Your task to perform on an android device: turn notification dots on Image 0: 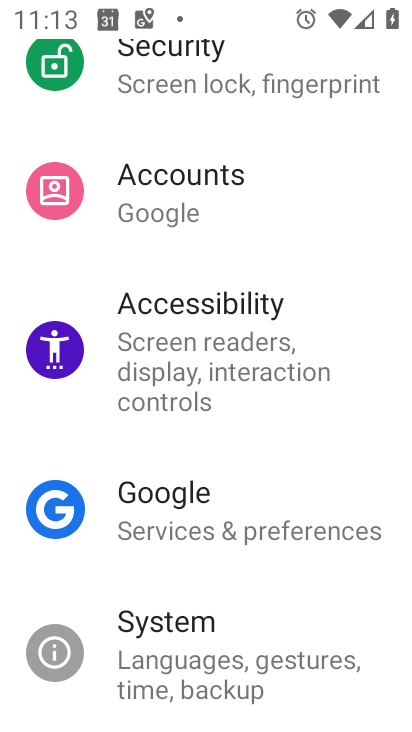
Step 0: drag from (284, 339) to (315, 461)
Your task to perform on an android device: turn notification dots on Image 1: 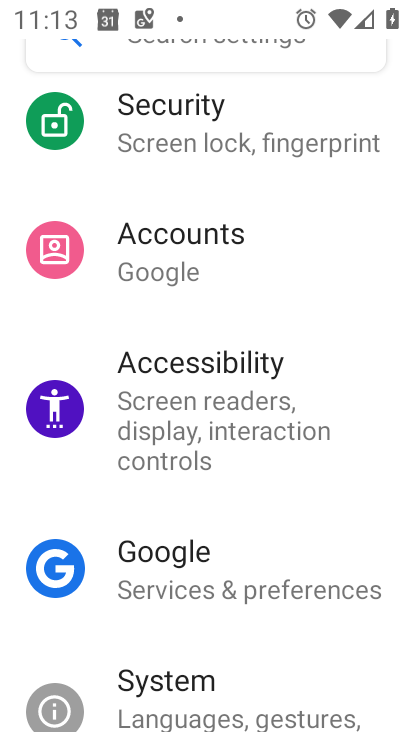
Step 1: drag from (288, 384) to (306, 455)
Your task to perform on an android device: turn notification dots on Image 2: 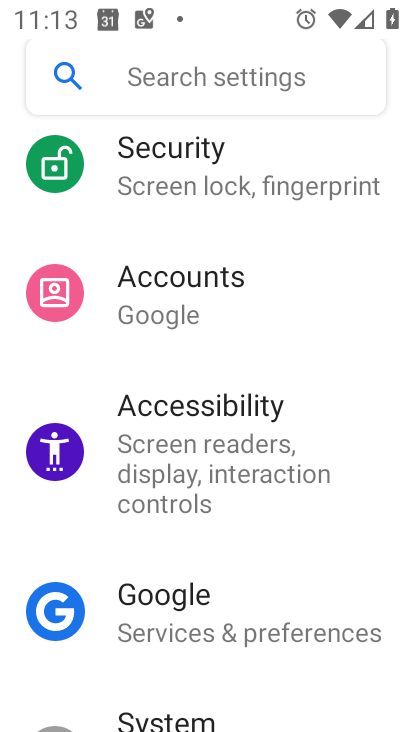
Step 2: drag from (269, 370) to (272, 514)
Your task to perform on an android device: turn notification dots on Image 3: 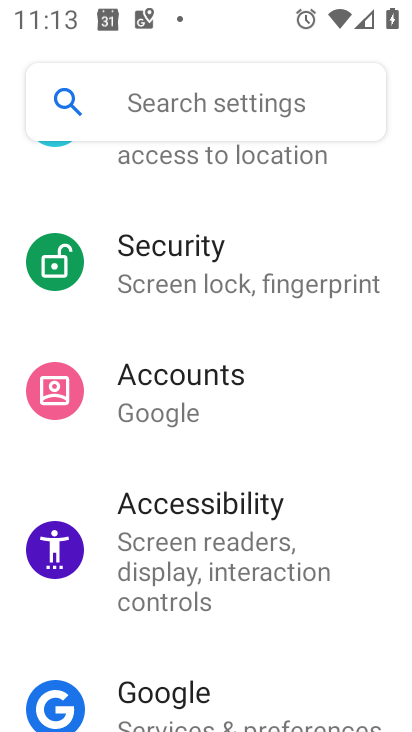
Step 3: drag from (97, 279) to (165, 520)
Your task to perform on an android device: turn notification dots on Image 4: 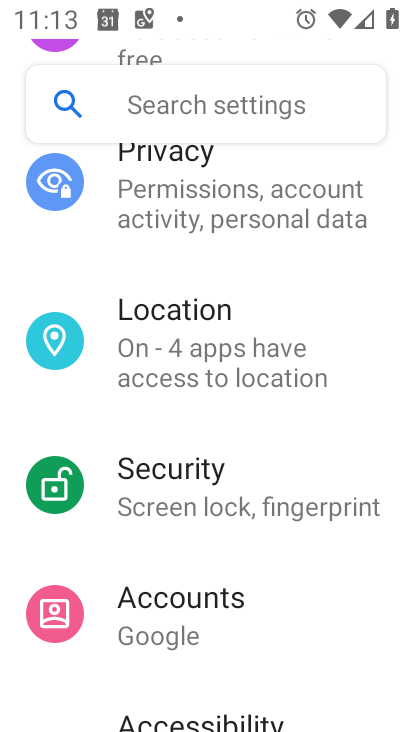
Step 4: drag from (178, 339) to (248, 536)
Your task to perform on an android device: turn notification dots on Image 5: 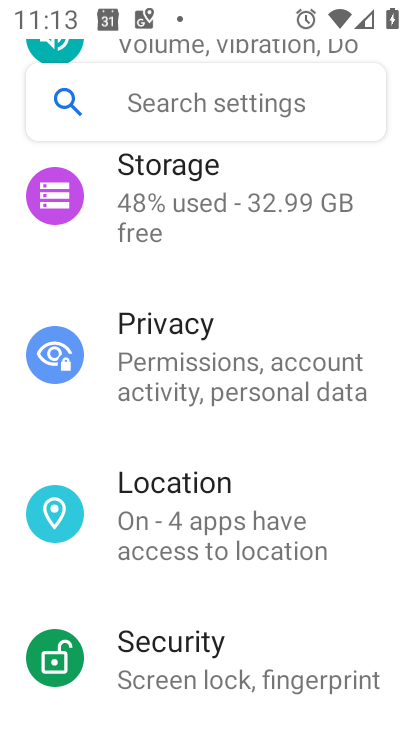
Step 5: drag from (314, 293) to (299, 656)
Your task to perform on an android device: turn notification dots on Image 6: 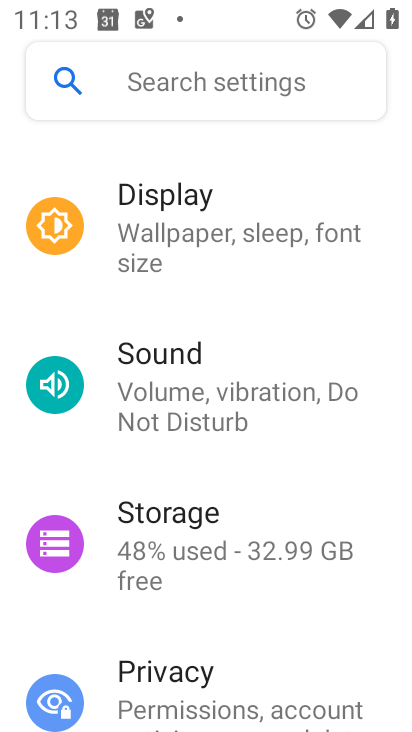
Step 6: drag from (227, 231) to (269, 427)
Your task to perform on an android device: turn notification dots on Image 7: 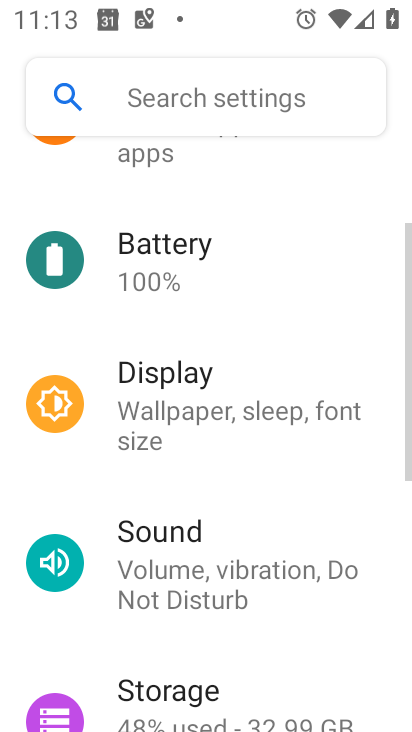
Step 7: drag from (271, 305) to (258, 445)
Your task to perform on an android device: turn notification dots on Image 8: 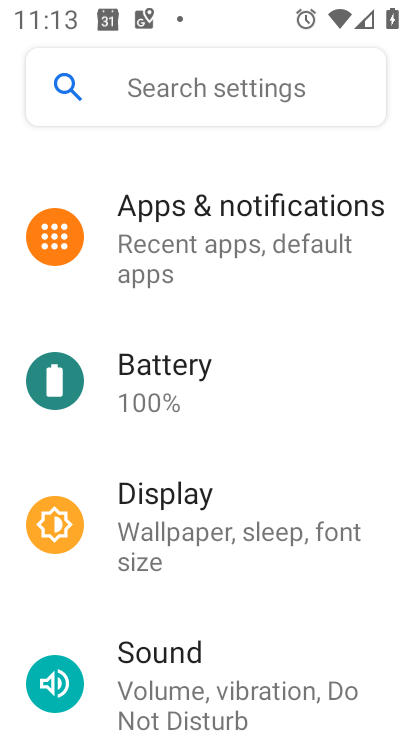
Step 8: click (200, 253)
Your task to perform on an android device: turn notification dots on Image 9: 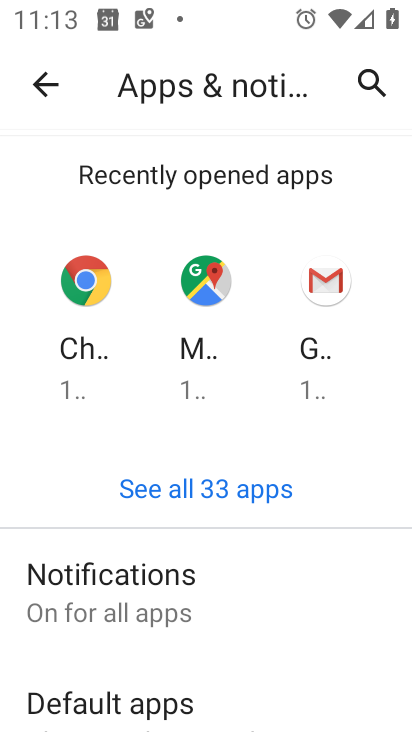
Step 9: drag from (216, 627) to (193, 402)
Your task to perform on an android device: turn notification dots on Image 10: 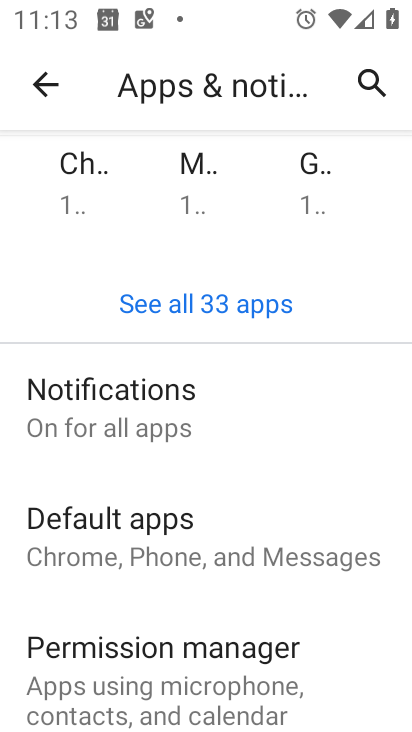
Step 10: click (167, 412)
Your task to perform on an android device: turn notification dots on Image 11: 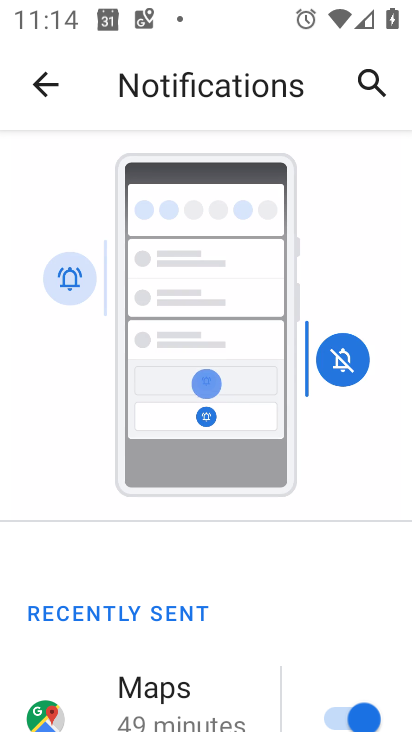
Step 11: drag from (182, 635) to (125, 400)
Your task to perform on an android device: turn notification dots on Image 12: 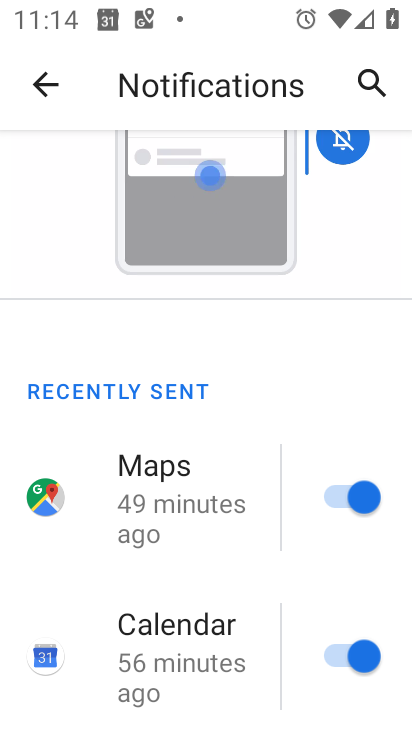
Step 12: drag from (151, 672) to (165, 299)
Your task to perform on an android device: turn notification dots on Image 13: 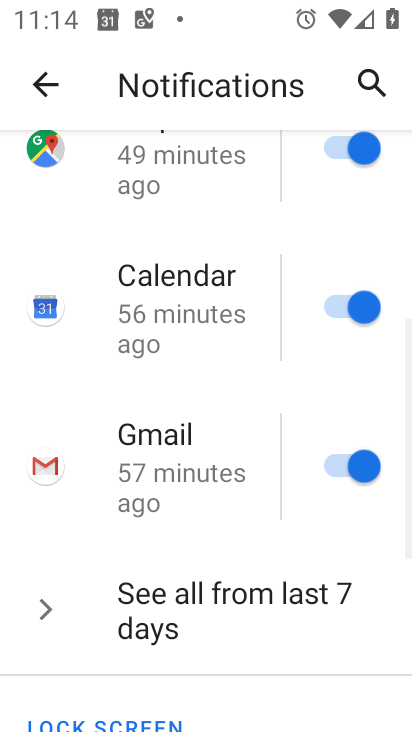
Step 13: drag from (159, 607) to (170, 265)
Your task to perform on an android device: turn notification dots on Image 14: 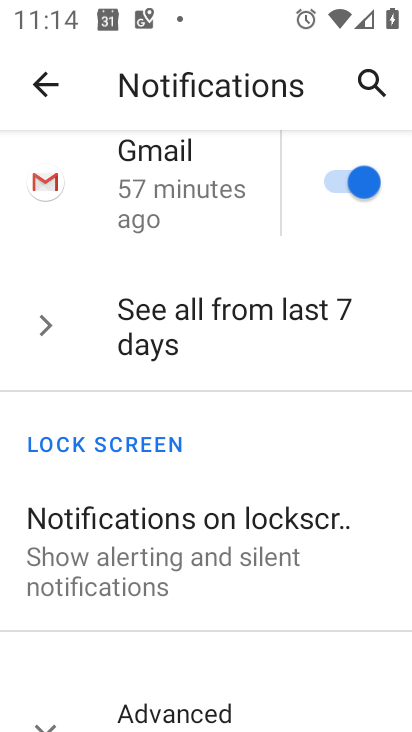
Step 14: click (210, 692)
Your task to perform on an android device: turn notification dots on Image 15: 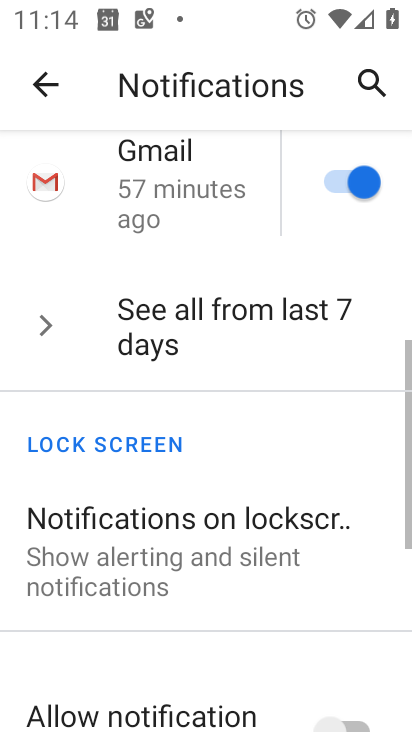
Step 15: task complete